Your task to perform on an android device: set default search engine in the chrome app Image 0: 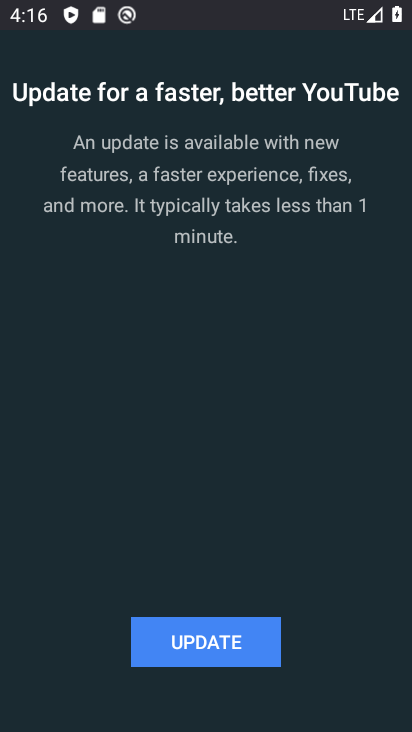
Step 0: press home button
Your task to perform on an android device: set default search engine in the chrome app Image 1: 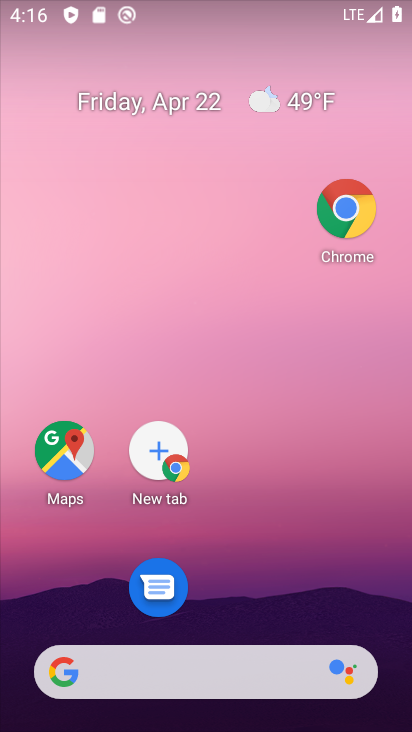
Step 1: click (329, 207)
Your task to perform on an android device: set default search engine in the chrome app Image 2: 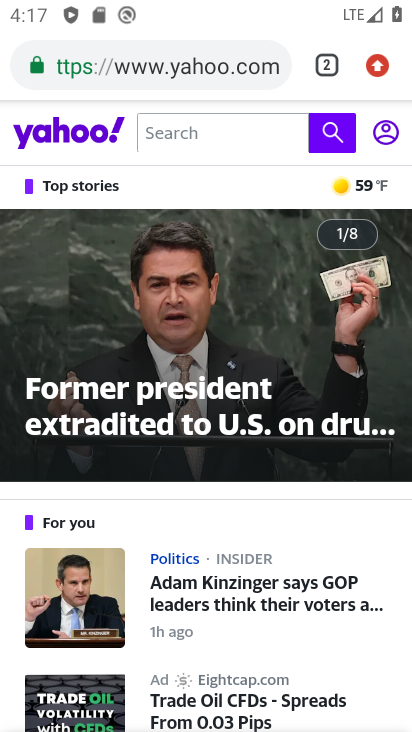
Step 2: click (383, 57)
Your task to perform on an android device: set default search engine in the chrome app Image 3: 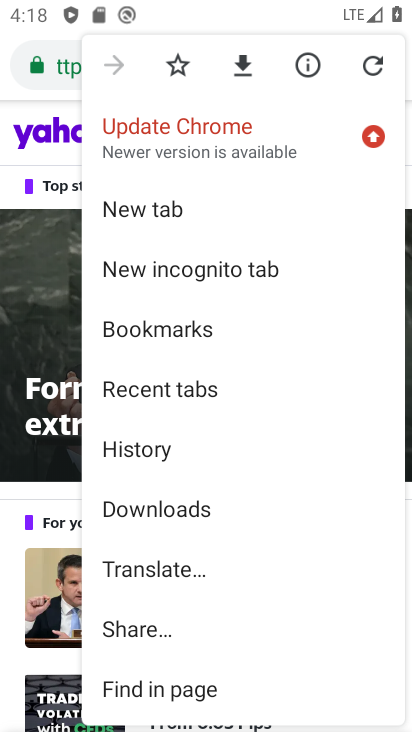
Step 3: drag from (183, 656) to (193, 478)
Your task to perform on an android device: set default search engine in the chrome app Image 4: 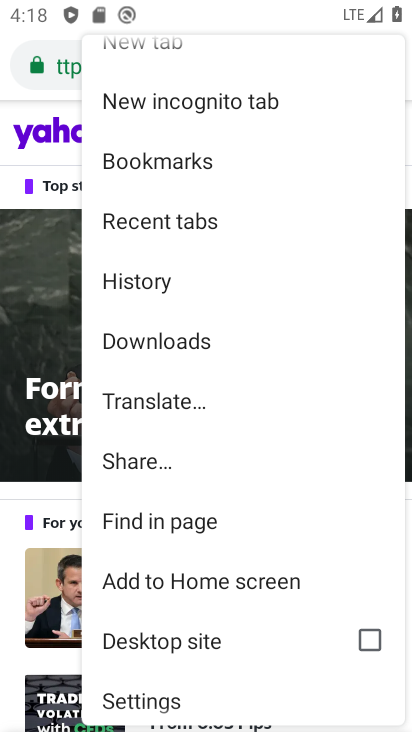
Step 4: click (147, 693)
Your task to perform on an android device: set default search engine in the chrome app Image 5: 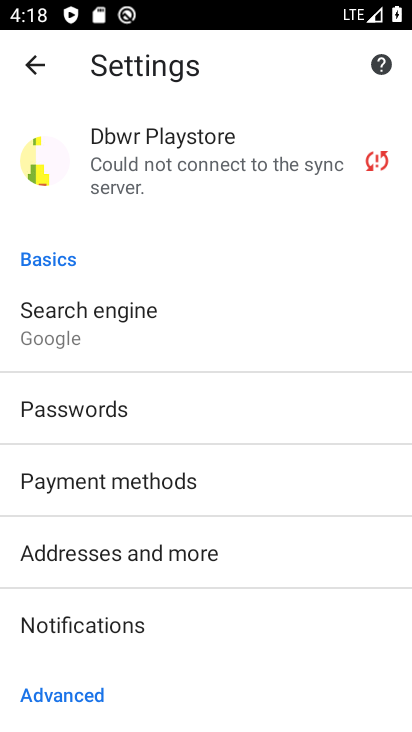
Step 5: click (122, 362)
Your task to perform on an android device: set default search engine in the chrome app Image 6: 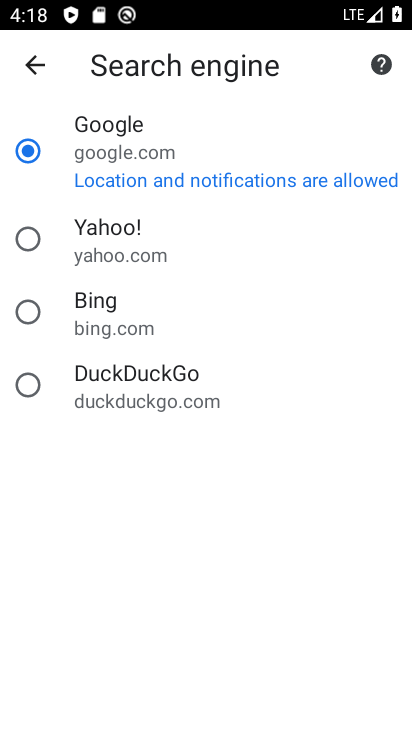
Step 6: click (127, 358)
Your task to perform on an android device: set default search engine in the chrome app Image 7: 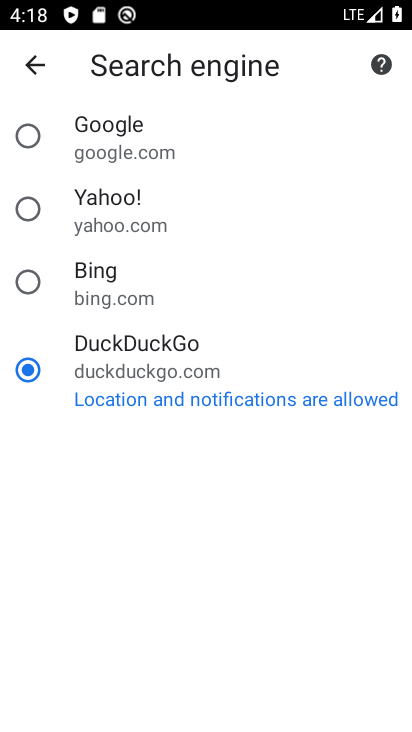
Step 7: task complete